Your task to perform on an android device: Find coffee shops on Maps Image 0: 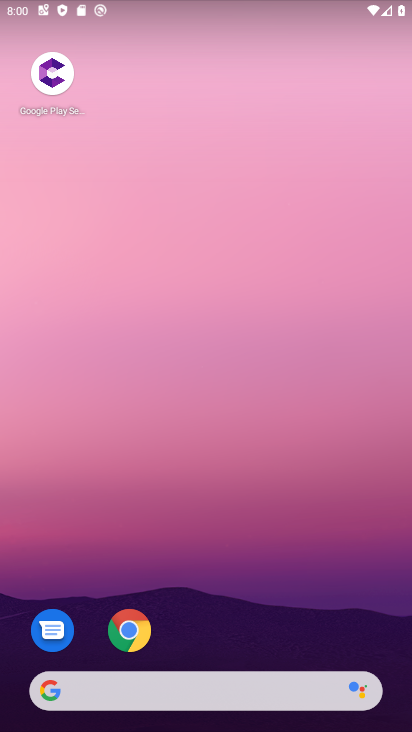
Step 0: drag from (299, 556) to (203, 74)
Your task to perform on an android device: Find coffee shops on Maps Image 1: 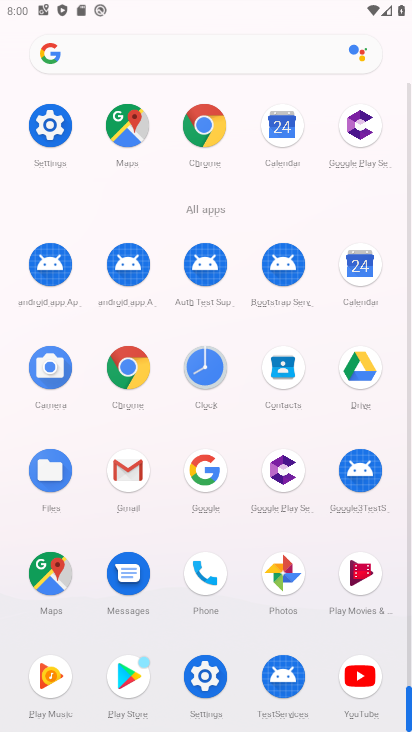
Step 1: drag from (6, 518) to (6, 292)
Your task to perform on an android device: Find coffee shops on Maps Image 2: 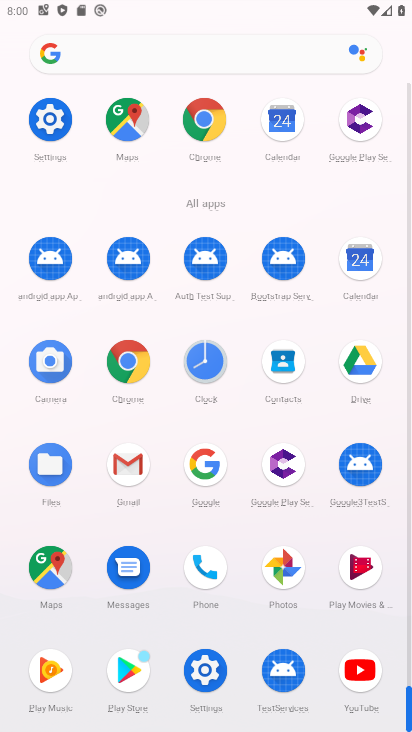
Step 2: click (45, 564)
Your task to perform on an android device: Find coffee shops on Maps Image 3: 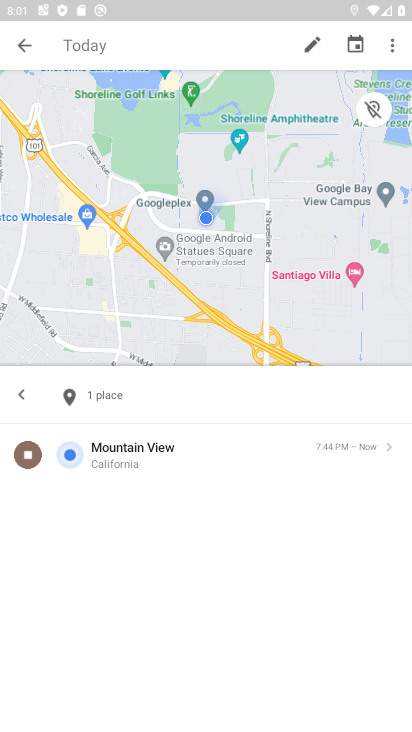
Step 3: click (27, 46)
Your task to perform on an android device: Find coffee shops on Maps Image 4: 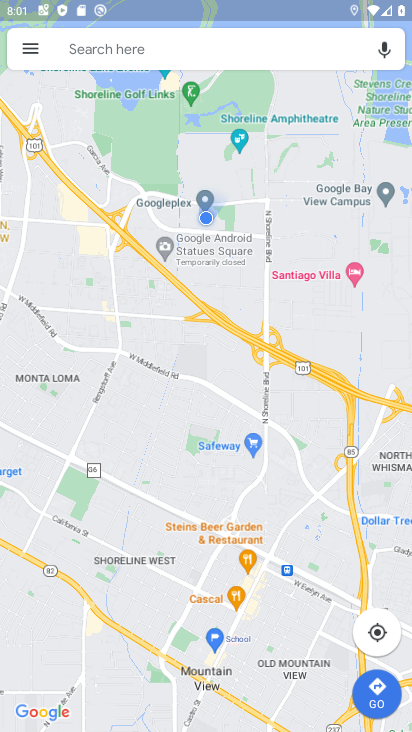
Step 4: click (234, 40)
Your task to perform on an android device: Find coffee shops on Maps Image 5: 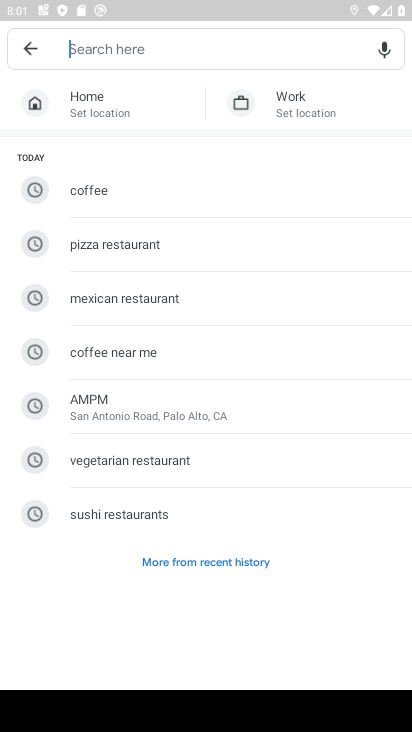
Step 5: type "coffee shops"
Your task to perform on an android device: Find coffee shops on Maps Image 6: 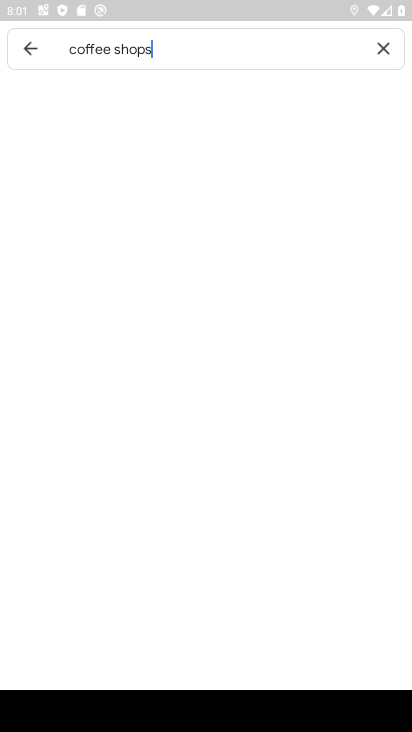
Step 6: type ""
Your task to perform on an android device: Find coffee shops on Maps Image 7: 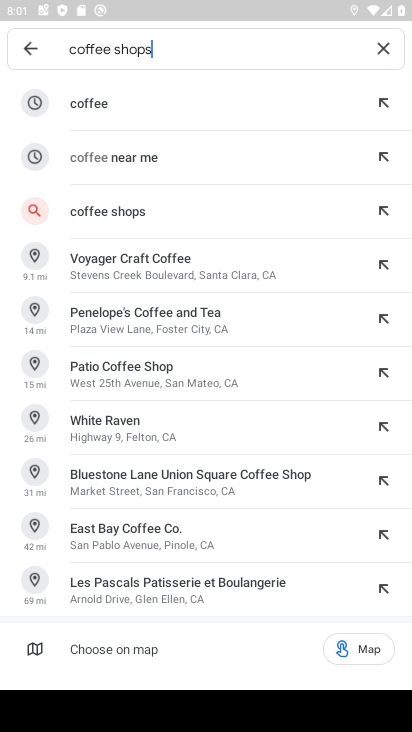
Step 7: click (135, 116)
Your task to perform on an android device: Find coffee shops on Maps Image 8: 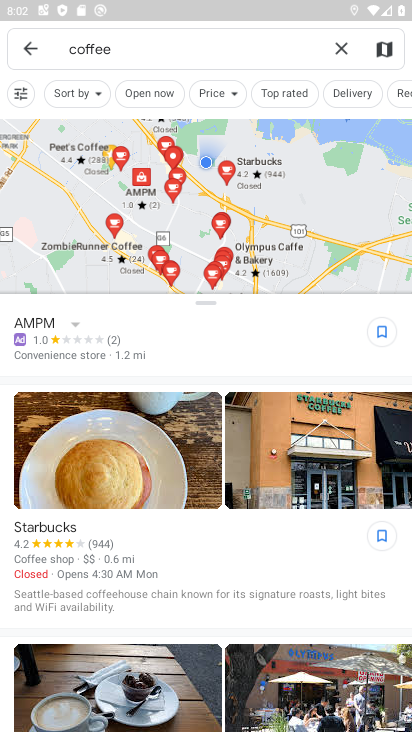
Step 8: task complete